Your task to perform on an android device: What is the recent news? Image 0: 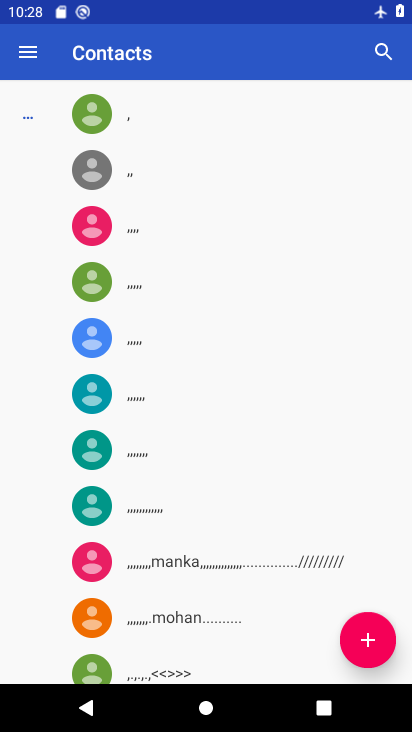
Step 0: press home button
Your task to perform on an android device: What is the recent news? Image 1: 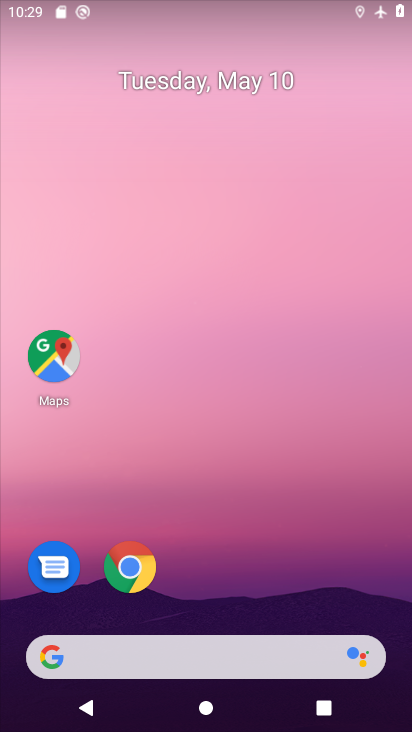
Step 1: click (137, 651)
Your task to perform on an android device: What is the recent news? Image 2: 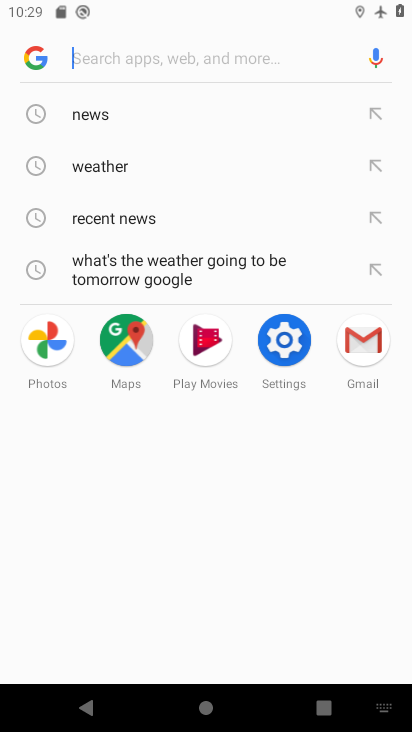
Step 2: type "recent news?"
Your task to perform on an android device: What is the recent news? Image 3: 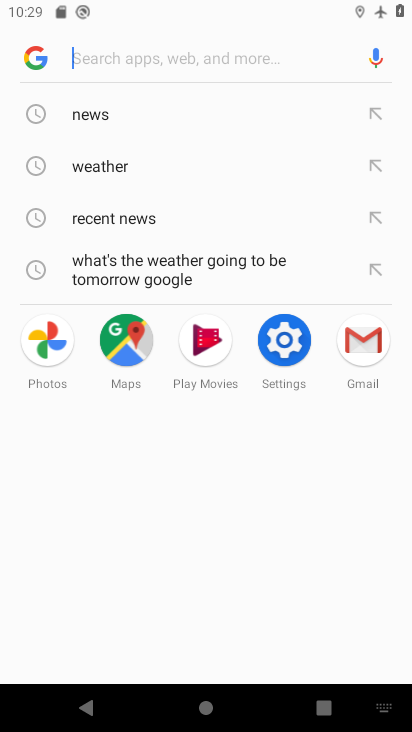
Step 3: click (152, 213)
Your task to perform on an android device: What is the recent news? Image 4: 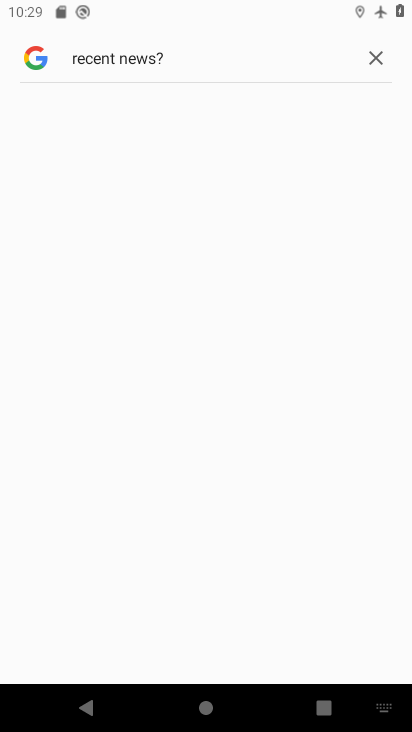
Step 4: press home button
Your task to perform on an android device: What is the recent news? Image 5: 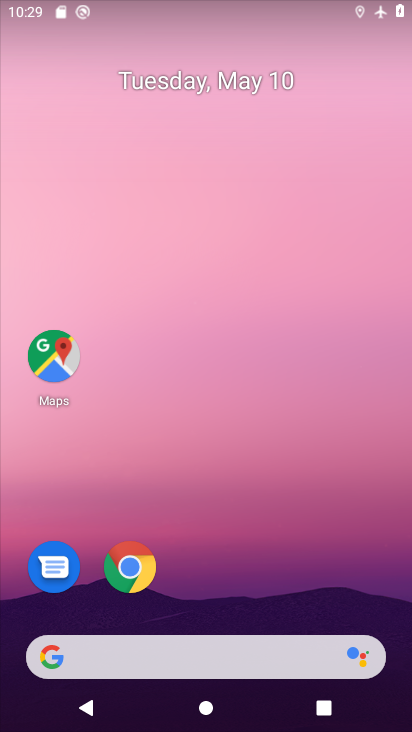
Step 5: drag from (198, 499) to (265, 12)
Your task to perform on an android device: What is the recent news? Image 6: 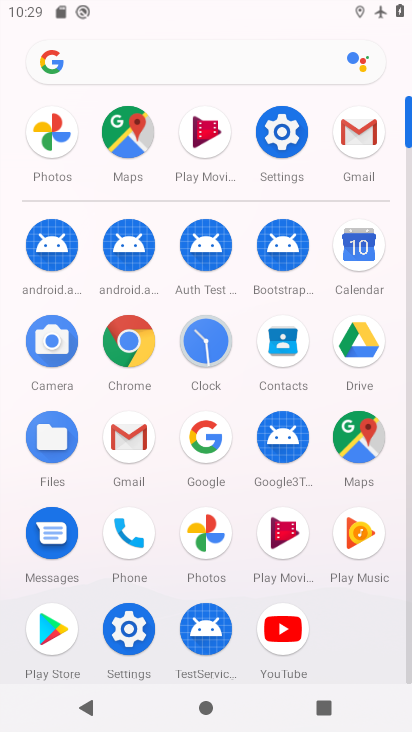
Step 6: click (288, 146)
Your task to perform on an android device: What is the recent news? Image 7: 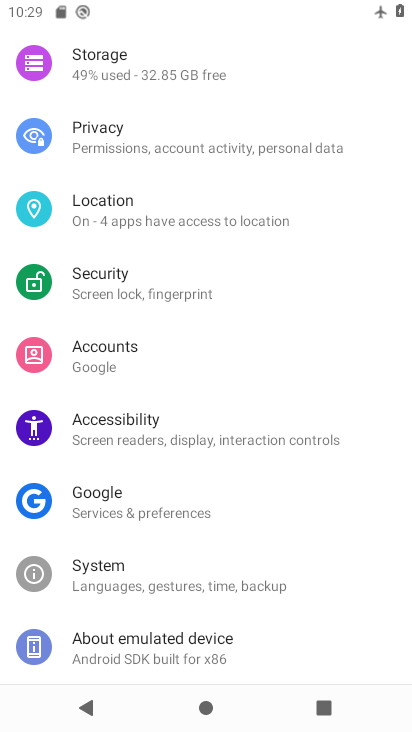
Step 7: drag from (216, 121) to (225, 558)
Your task to perform on an android device: What is the recent news? Image 8: 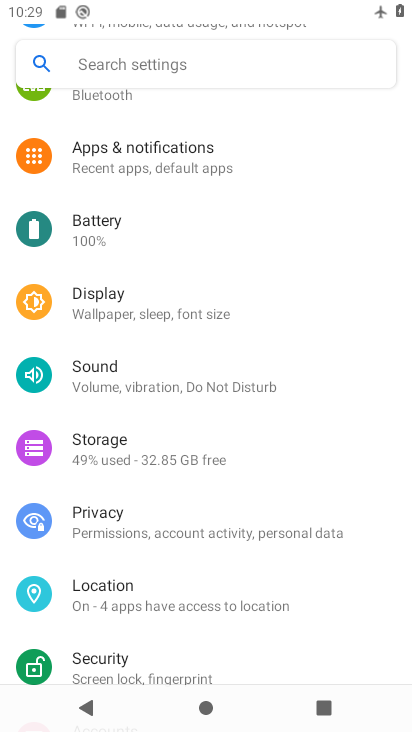
Step 8: drag from (255, 95) to (188, 563)
Your task to perform on an android device: What is the recent news? Image 9: 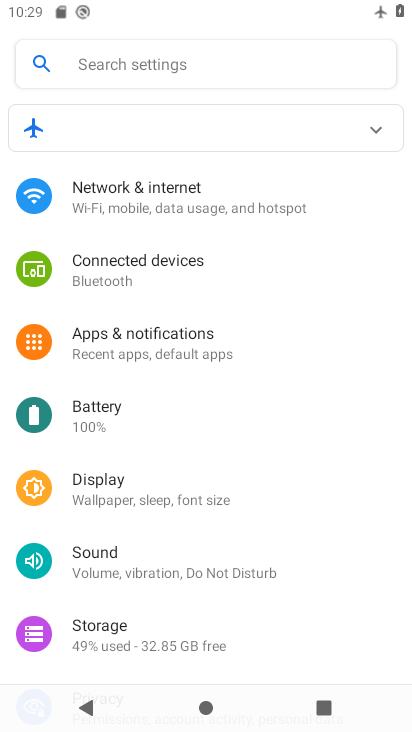
Step 9: click (245, 192)
Your task to perform on an android device: What is the recent news? Image 10: 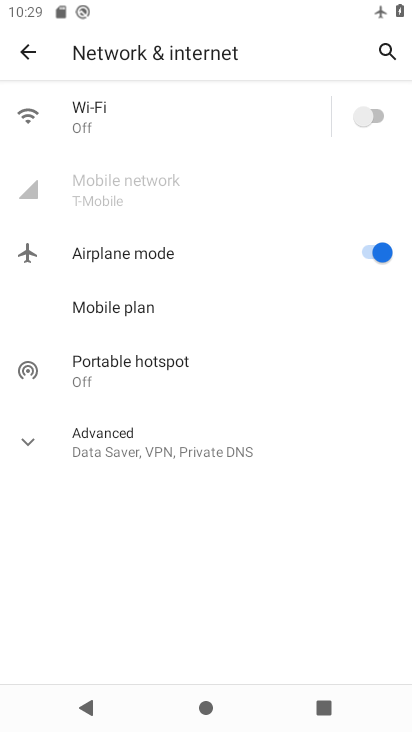
Step 10: click (371, 255)
Your task to perform on an android device: What is the recent news? Image 11: 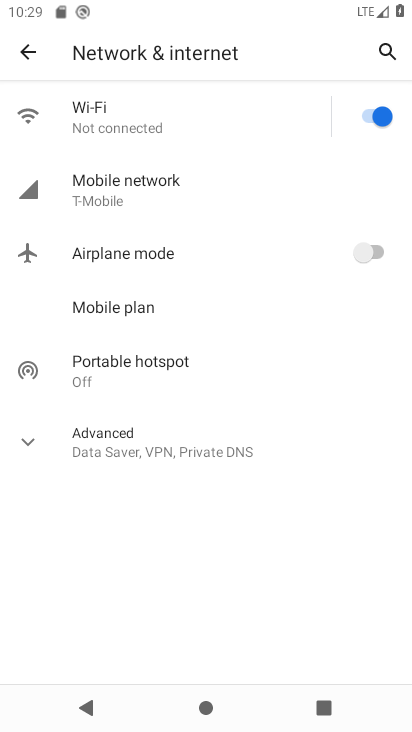
Step 11: task complete